Your task to perform on an android device: Check the weather Image 0: 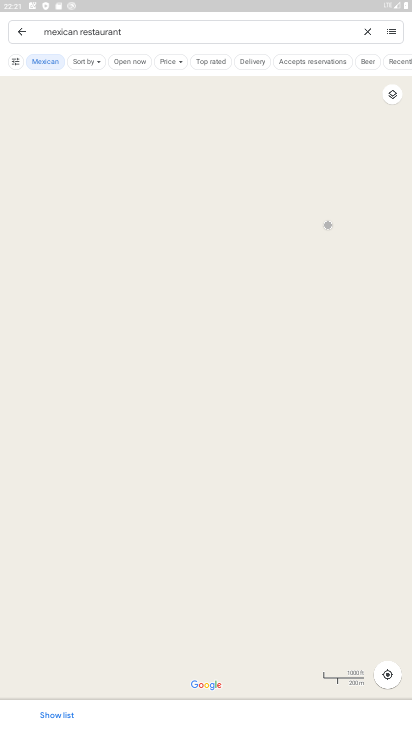
Step 0: press home button
Your task to perform on an android device: Check the weather Image 1: 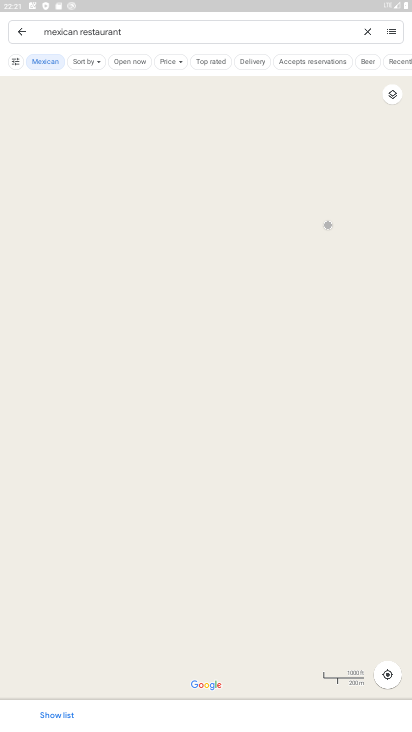
Step 1: drag from (223, 627) to (232, 302)
Your task to perform on an android device: Check the weather Image 2: 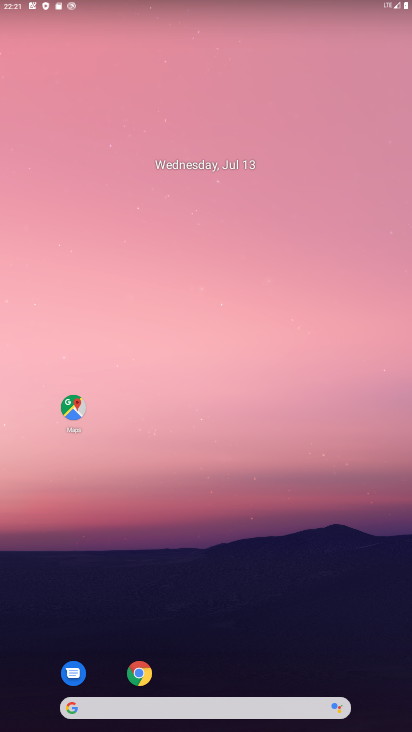
Step 2: drag from (209, 507) to (333, 139)
Your task to perform on an android device: Check the weather Image 3: 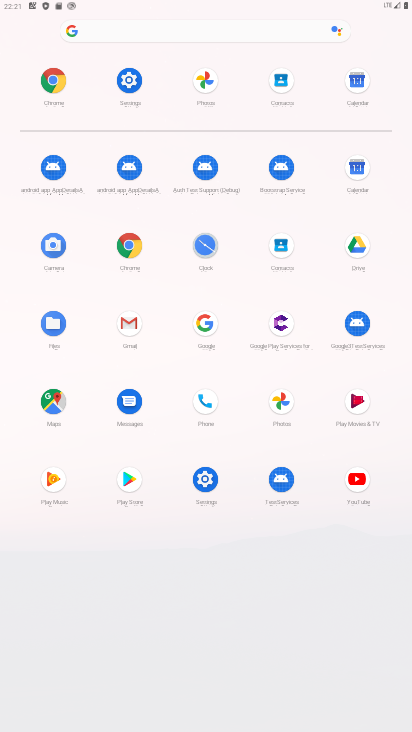
Step 3: click (132, 21)
Your task to perform on an android device: Check the weather Image 4: 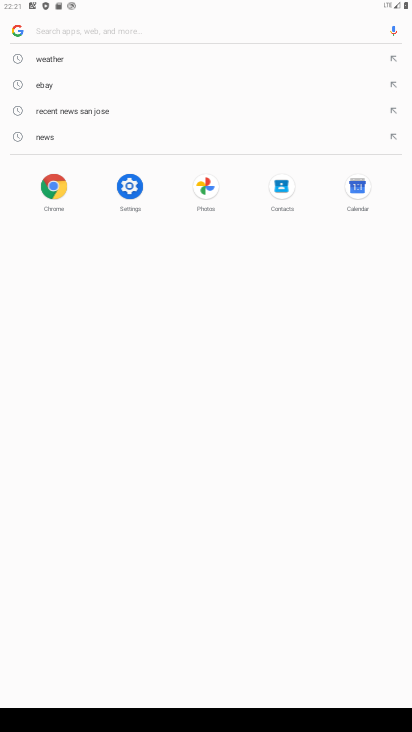
Step 4: click (51, 60)
Your task to perform on an android device: Check the weather Image 5: 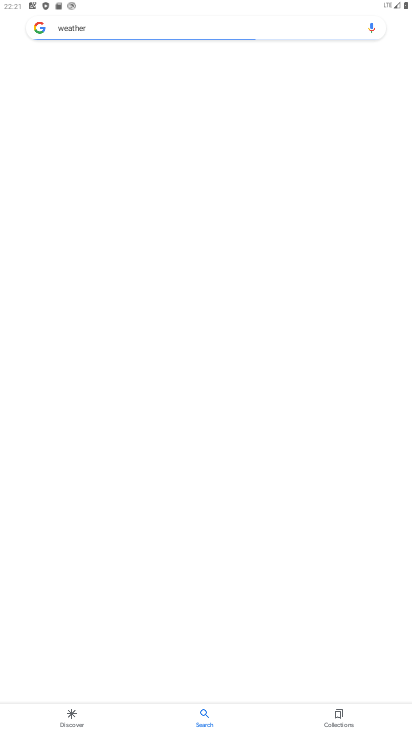
Step 5: task complete